Your task to perform on an android device: Open Amazon Image 0: 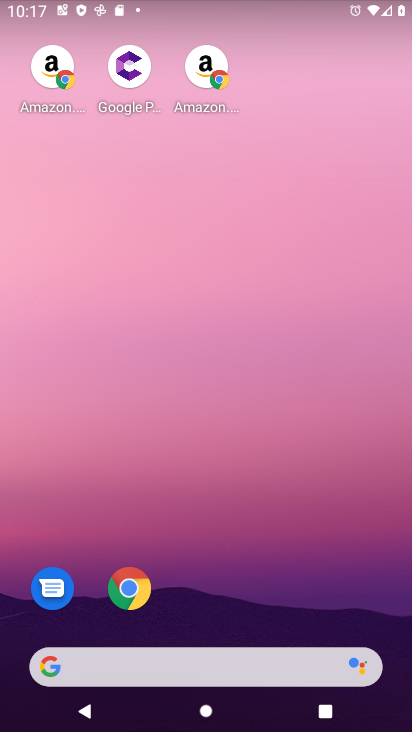
Step 0: drag from (253, 480) to (54, 58)
Your task to perform on an android device: Open Amazon Image 1: 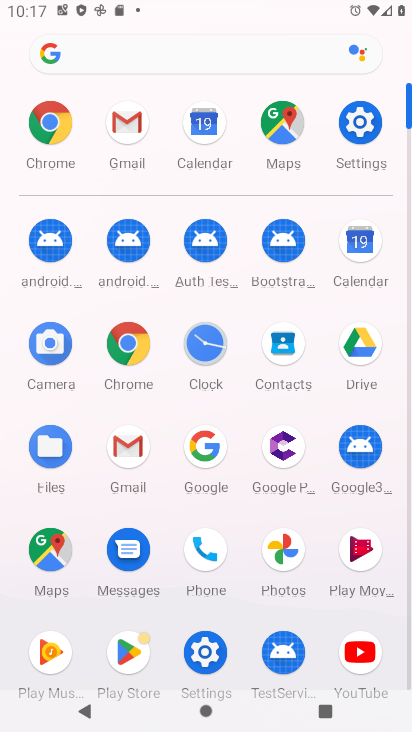
Step 1: click (123, 337)
Your task to perform on an android device: Open Amazon Image 2: 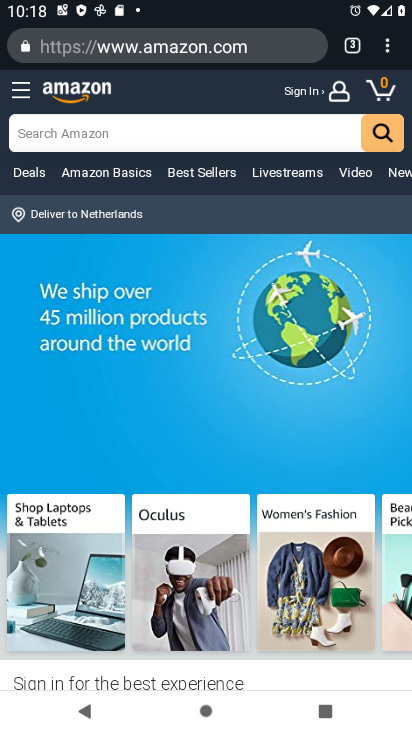
Step 2: task complete